Your task to perform on an android device: show emergency info Image 0: 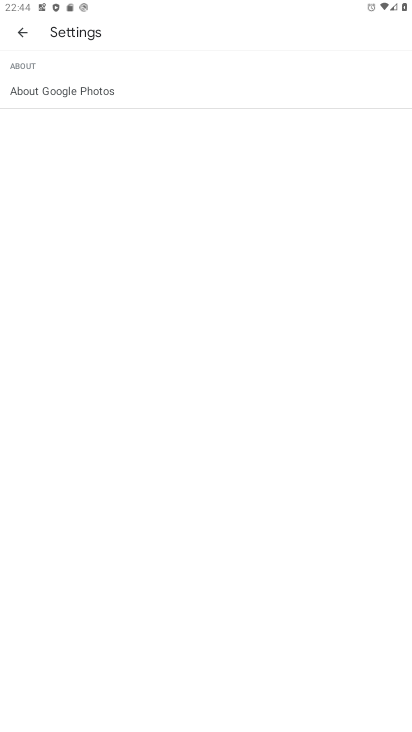
Step 0: press home button
Your task to perform on an android device: show emergency info Image 1: 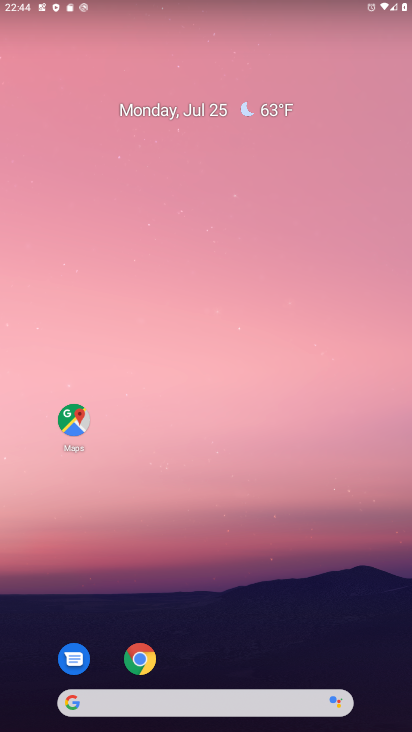
Step 1: drag from (211, 684) to (204, 210)
Your task to perform on an android device: show emergency info Image 2: 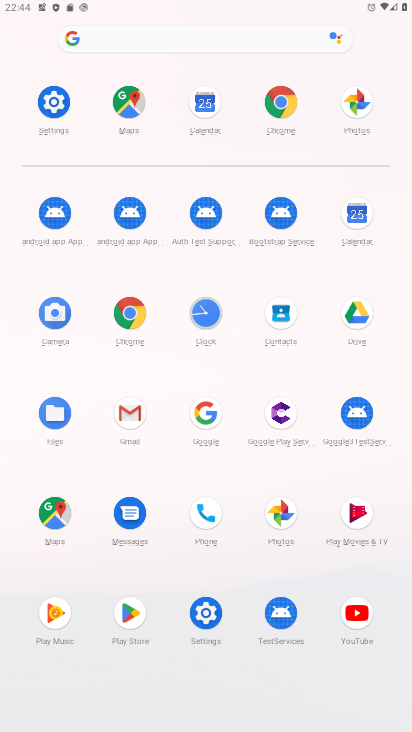
Step 2: click (52, 95)
Your task to perform on an android device: show emergency info Image 3: 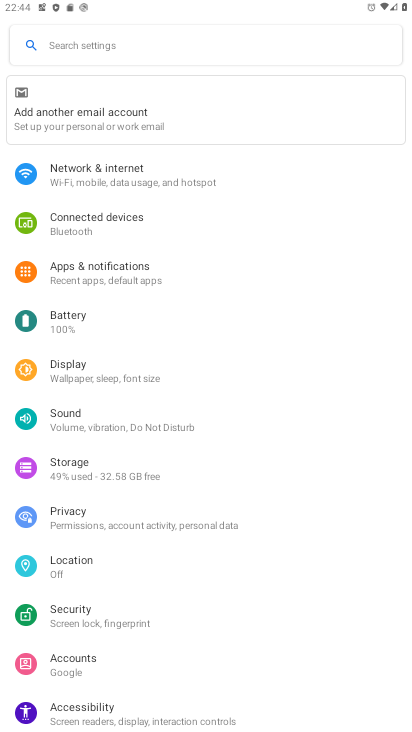
Step 3: drag from (106, 690) to (112, 306)
Your task to perform on an android device: show emergency info Image 4: 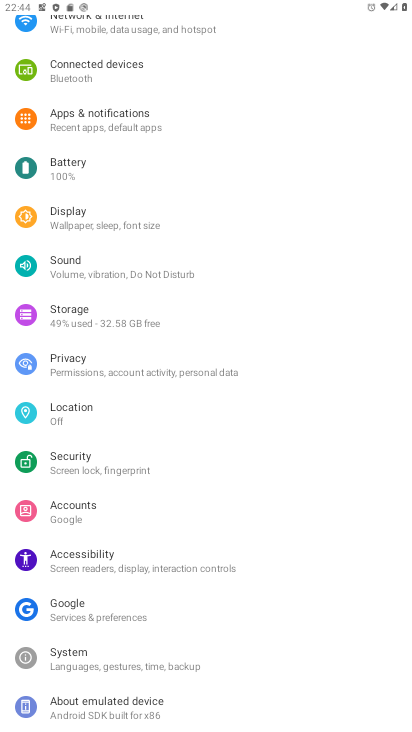
Step 4: click (97, 709)
Your task to perform on an android device: show emergency info Image 5: 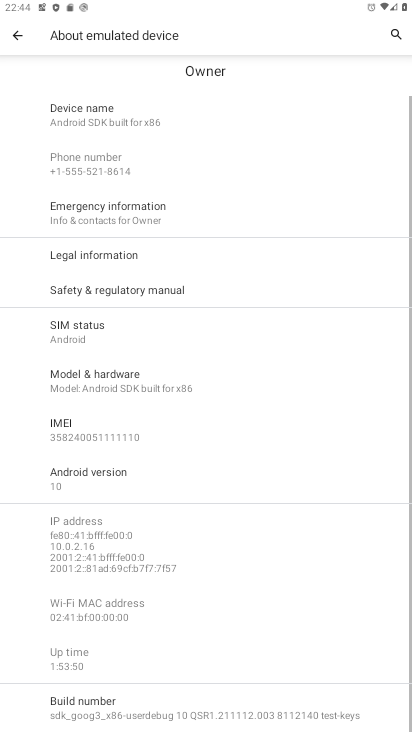
Step 5: drag from (149, 687) to (149, 298)
Your task to perform on an android device: show emergency info Image 6: 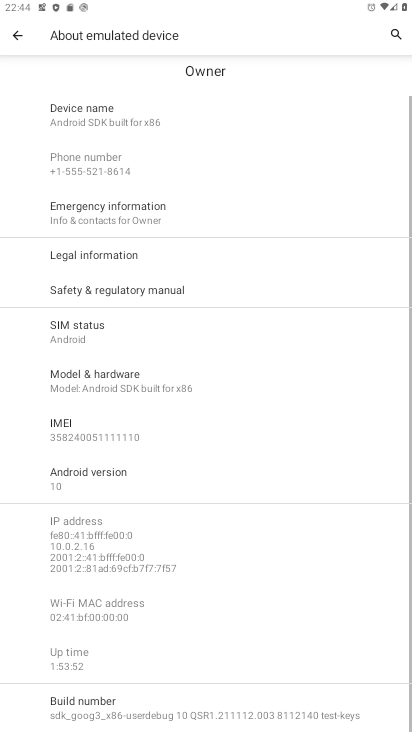
Step 6: click (94, 212)
Your task to perform on an android device: show emergency info Image 7: 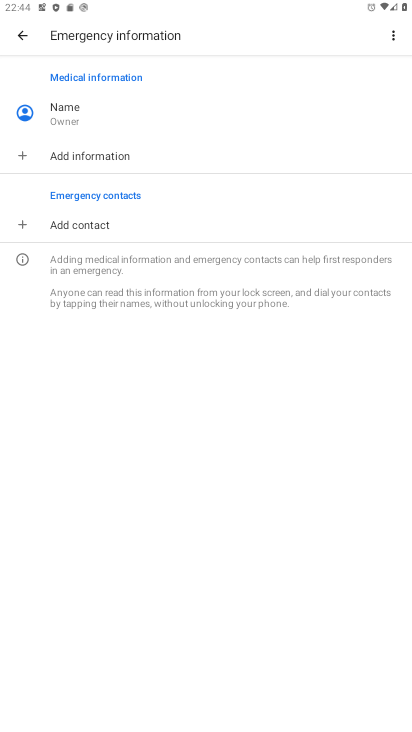
Step 7: task complete